Your task to perform on an android device: Toggle the flashlight Image 0: 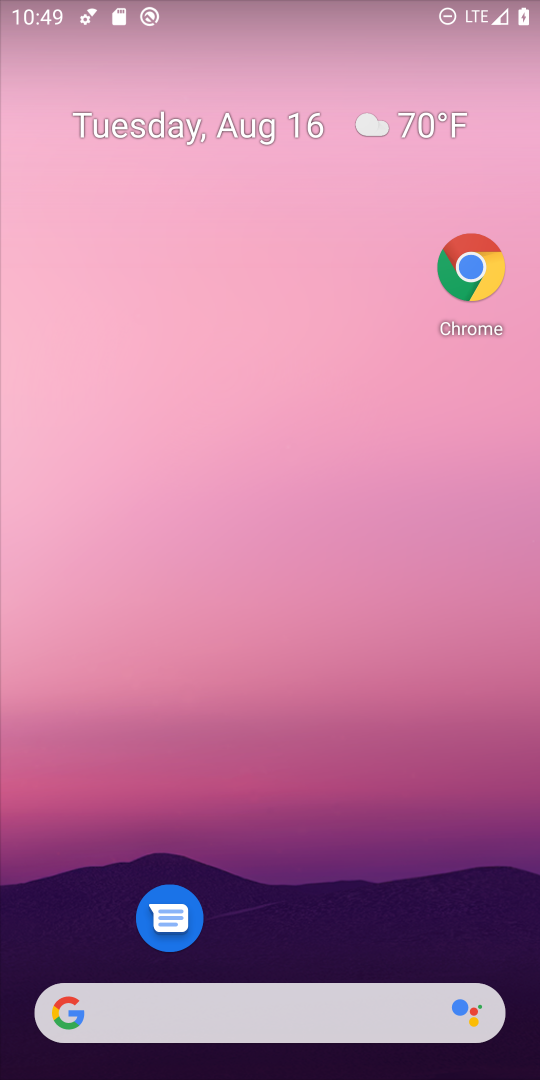
Step 0: drag from (288, 953) to (362, 1)
Your task to perform on an android device: Toggle the flashlight Image 1: 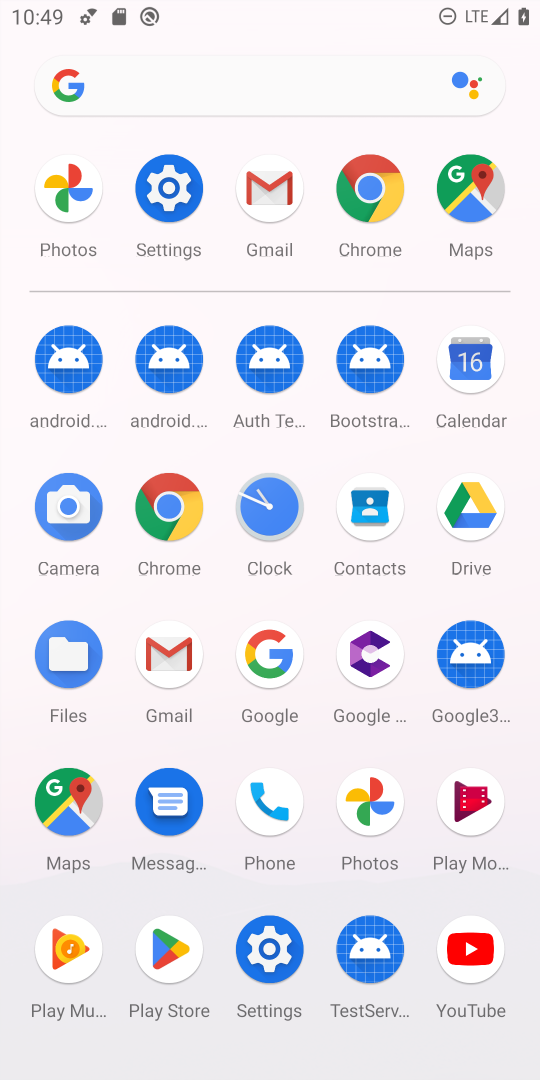
Step 1: task complete